Your task to perform on an android device: turn on notifications settings in the gmail app Image 0: 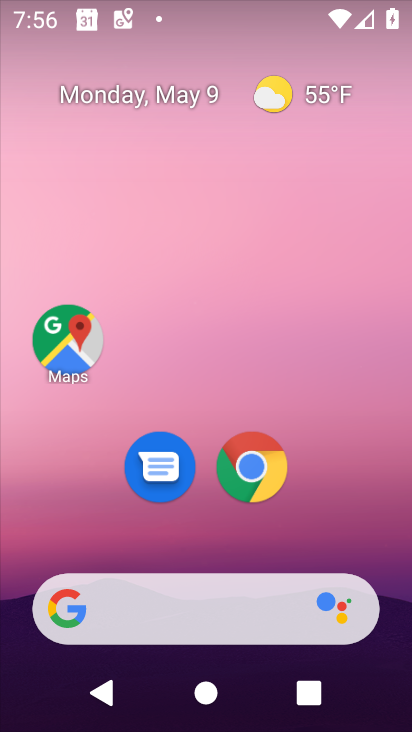
Step 0: drag from (334, 539) to (258, 3)
Your task to perform on an android device: turn on notifications settings in the gmail app Image 1: 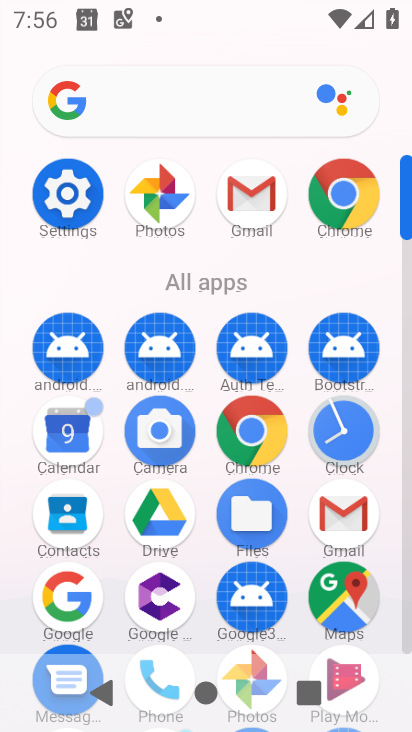
Step 1: click (253, 192)
Your task to perform on an android device: turn on notifications settings in the gmail app Image 2: 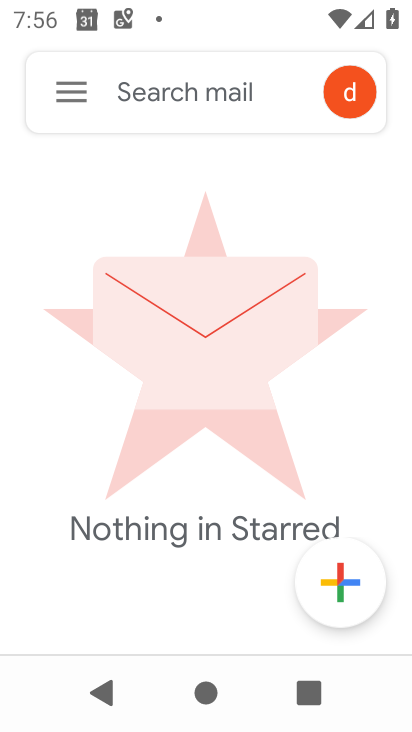
Step 2: click (69, 97)
Your task to perform on an android device: turn on notifications settings in the gmail app Image 3: 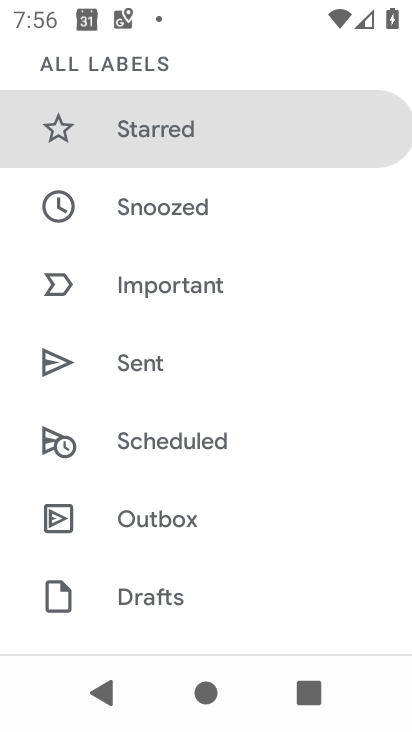
Step 3: drag from (283, 547) to (223, 133)
Your task to perform on an android device: turn on notifications settings in the gmail app Image 4: 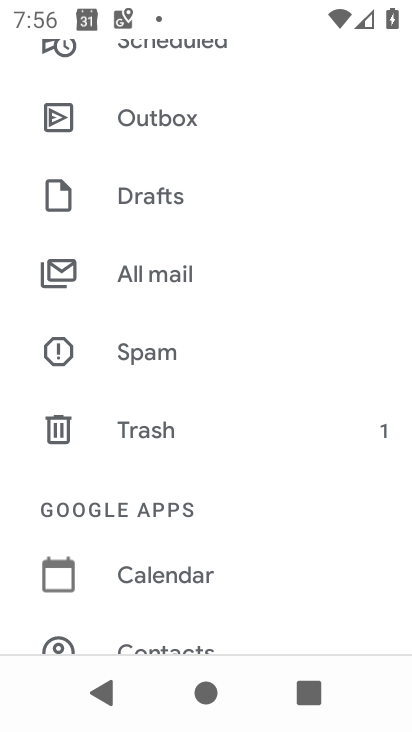
Step 4: drag from (205, 506) to (195, 107)
Your task to perform on an android device: turn on notifications settings in the gmail app Image 5: 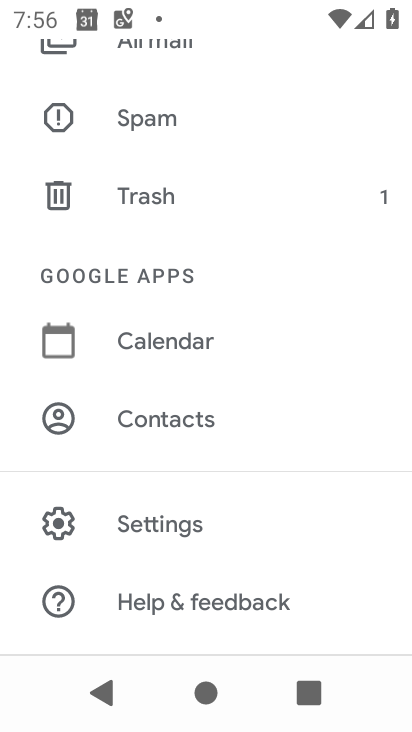
Step 5: click (168, 519)
Your task to perform on an android device: turn on notifications settings in the gmail app Image 6: 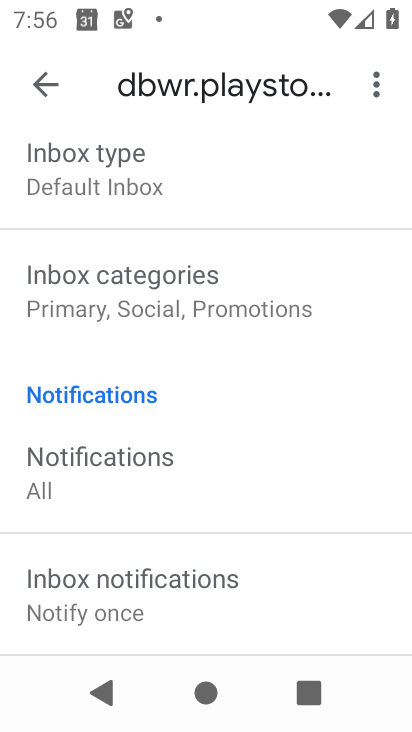
Step 6: click (45, 80)
Your task to perform on an android device: turn on notifications settings in the gmail app Image 7: 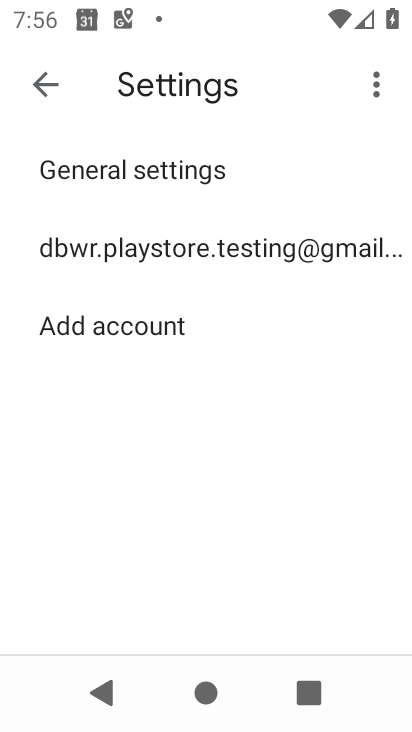
Step 7: click (51, 170)
Your task to perform on an android device: turn on notifications settings in the gmail app Image 8: 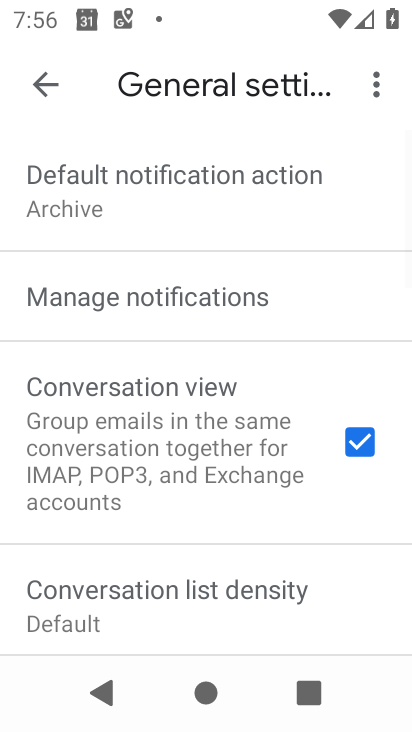
Step 8: click (135, 312)
Your task to perform on an android device: turn on notifications settings in the gmail app Image 9: 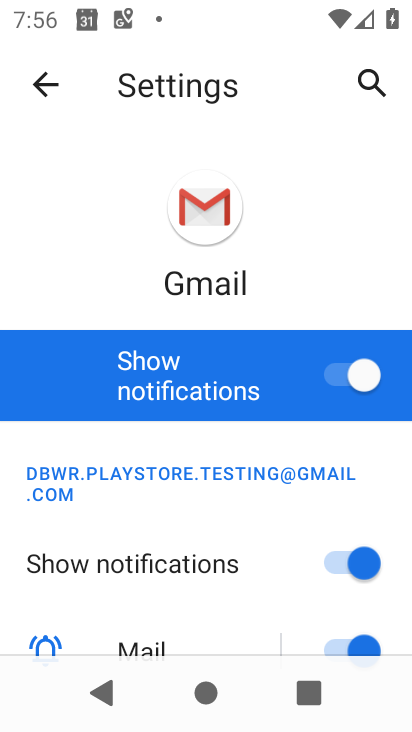
Step 9: task complete